Your task to perform on an android device: toggle show notifications on the lock screen Image 0: 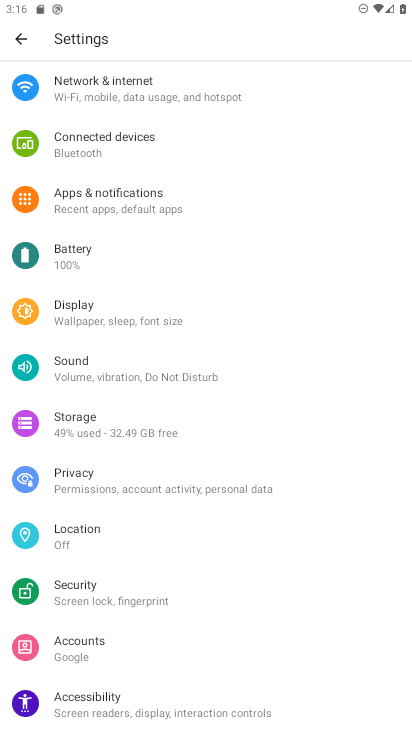
Step 0: click (137, 200)
Your task to perform on an android device: toggle show notifications on the lock screen Image 1: 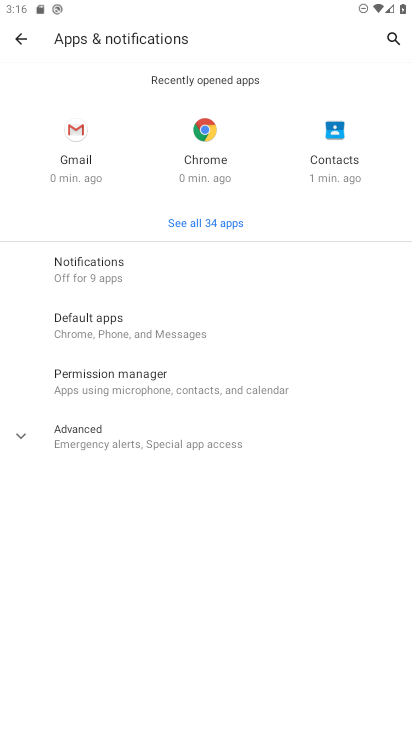
Step 1: click (114, 268)
Your task to perform on an android device: toggle show notifications on the lock screen Image 2: 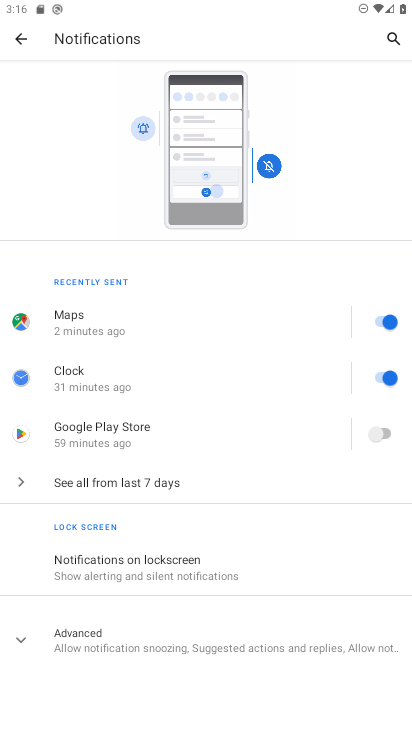
Step 2: click (137, 578)
Your task to perform on an android device: toggle show notifications on the lock screen Image 3: 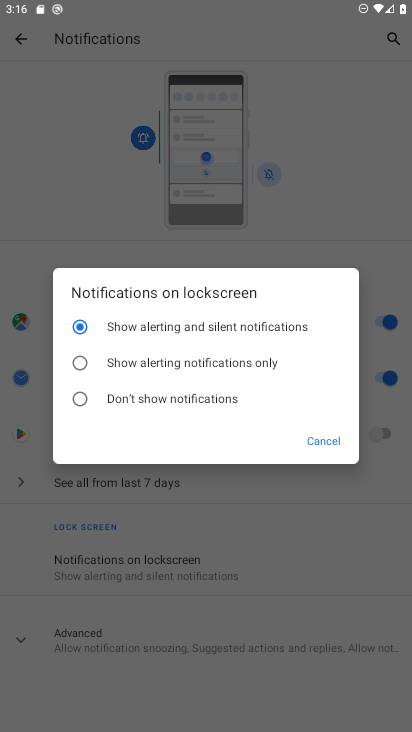
Step 3: click (101, 409)
Your task to perform on an android device: toggle show notifications on the lock screen Image 4: 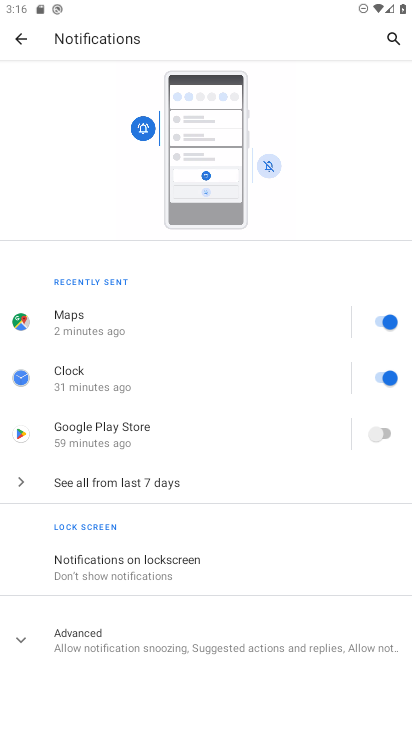
Step 4: task complete